Your task to perform on an android device: Open wifi settings Image 0: 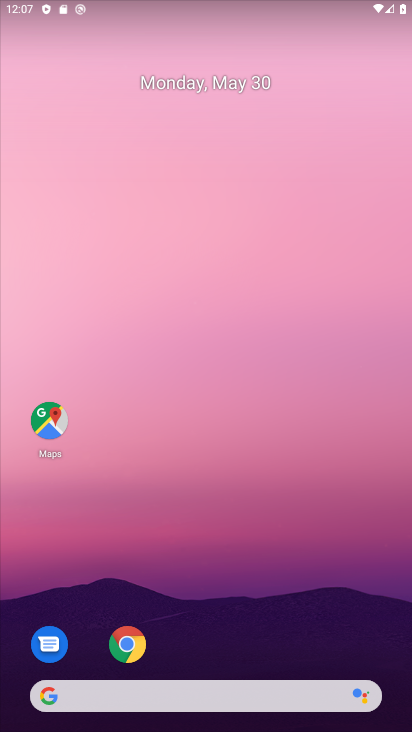
Step 0: drag from (189, 671) to (224, 134)
Your task to perform on an android device: Open wifi settings Image 1: 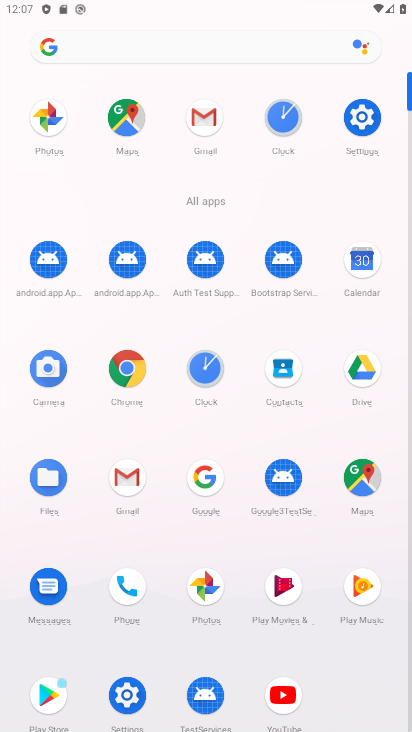
Step 1: drag from (156, 570) to (200, 338)
Your task to perform on an android device: Open wifi settings Image 2: 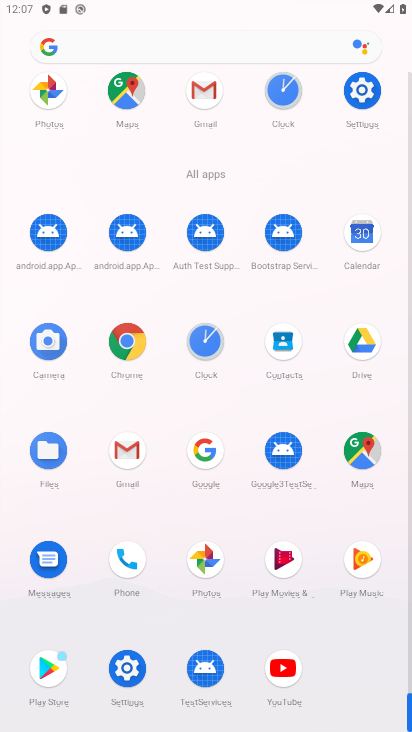
Step 2: click (127, 665)
Your task to perform on an android device: Open wifi settings Image 3: 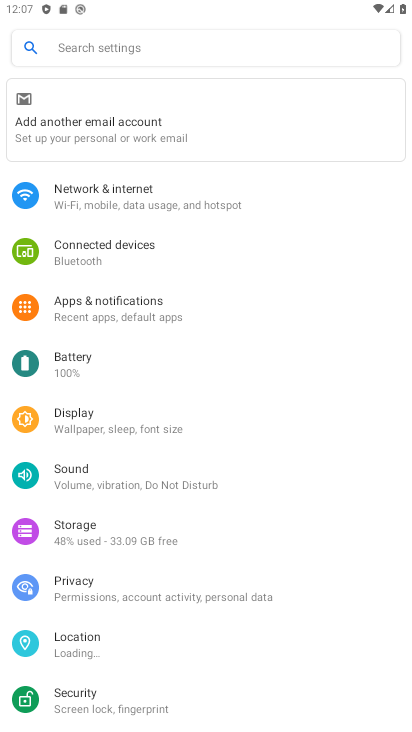
Step 3: click (174, 204)
Your task to perform on an android device: Open wifi settings Image 4: 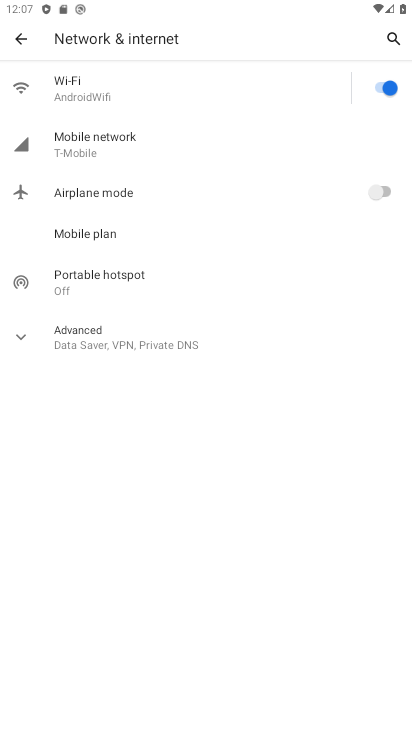
Step 4: click (175, 98)
Your task to perform on an android device: Open wifi settings Image 5: 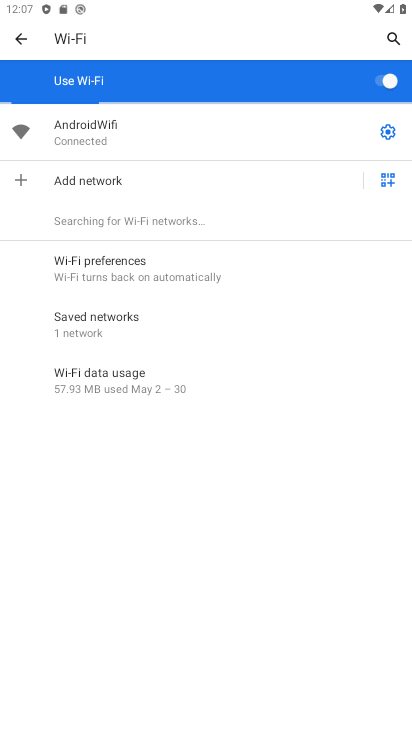
Step 5: task complete